Your task to perform on an android device: Show me the alarms in the clock app Image 0: 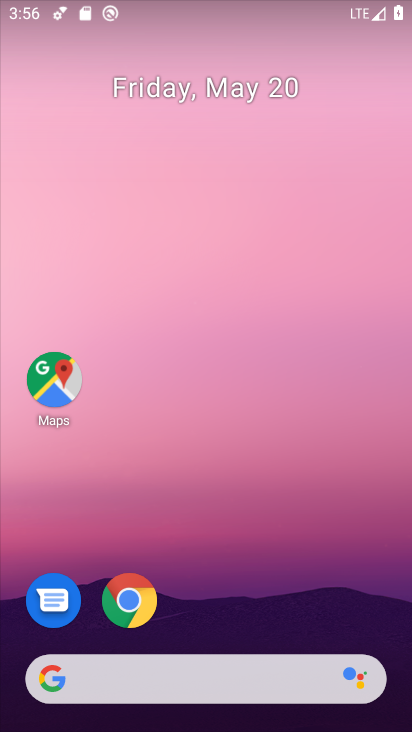
Step 0: drag from (303, 615) to (335, 272)
Your task to perform on an android device: Show me the alarms in the clock app Image 1: 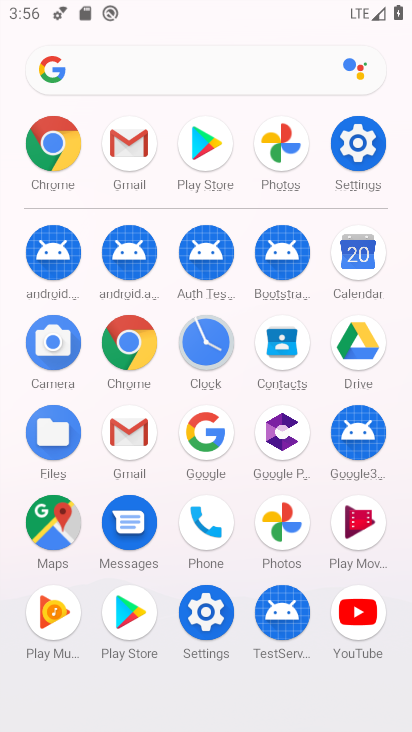
Step 1: click (213, 351)
Your task to perform on an android device: Show me the alarms in the clock app Image 2: 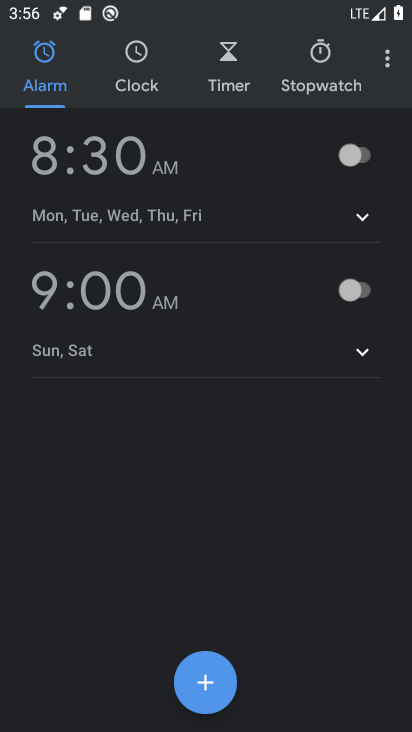
Step 2: task complete